Your task to perform on an android device: Open privacy settings Image 0: 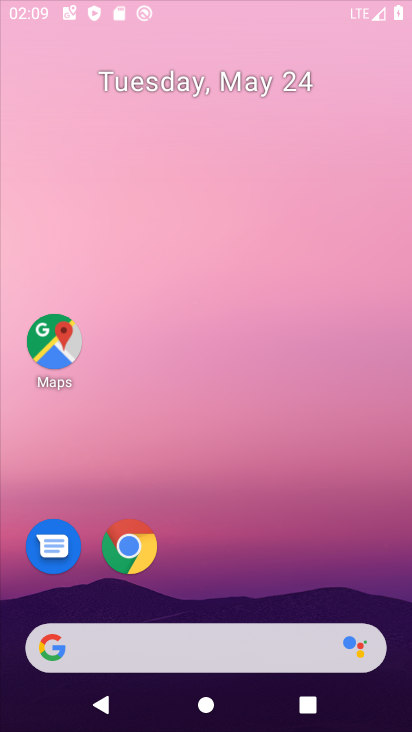
Step 0: click (341, 105)
Your task to perform on an android device: Open privacy settings Image 1: 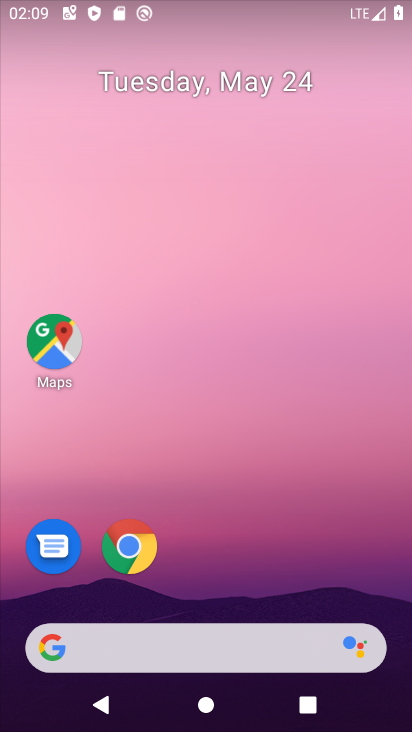
Step 1: click (288, 144)
Your task to perform on an android device: Open privacy settings Image 2: 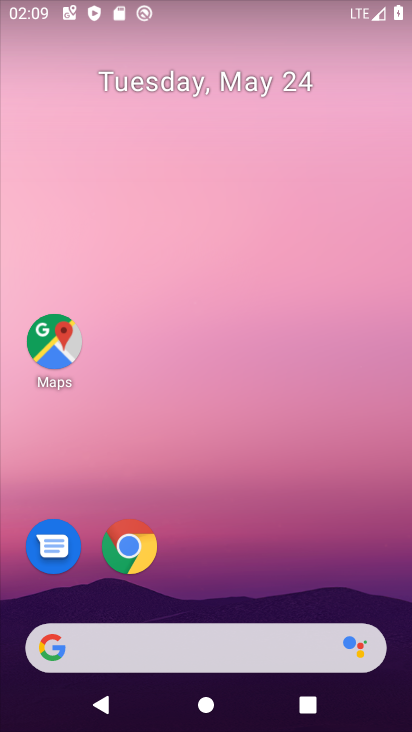
Step 2: drag from (207, 564) to (276, 116)
Your task to perform on an android device: Open privacy settings Image 3: 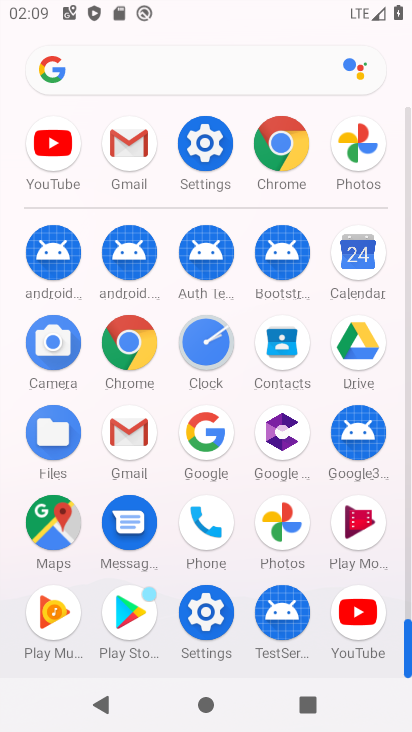
Step 3: click (206, 133)
Your task to perform on an android device: Open privacy settings Image 4: 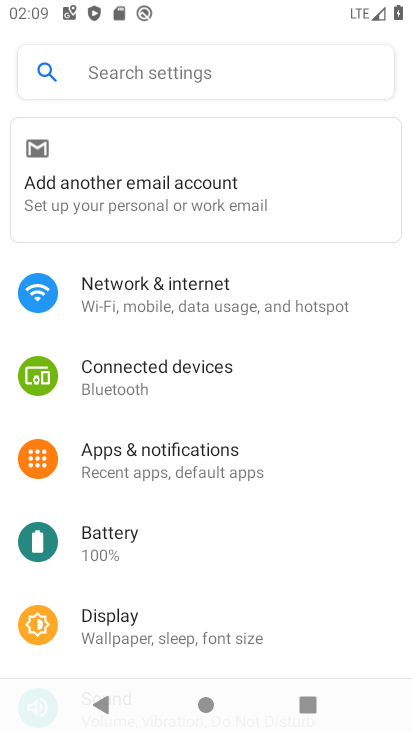
Step 4: drag from (219, 551) to (293, 167)
Your task to perform on an android device: Open privacy settings Image 5: 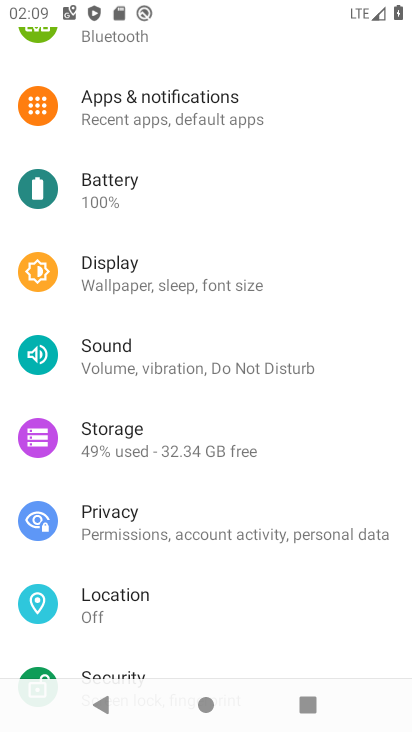
Step 5: click (160, 524)
Your task to perform on an android device: Open privacy settings Image 6: 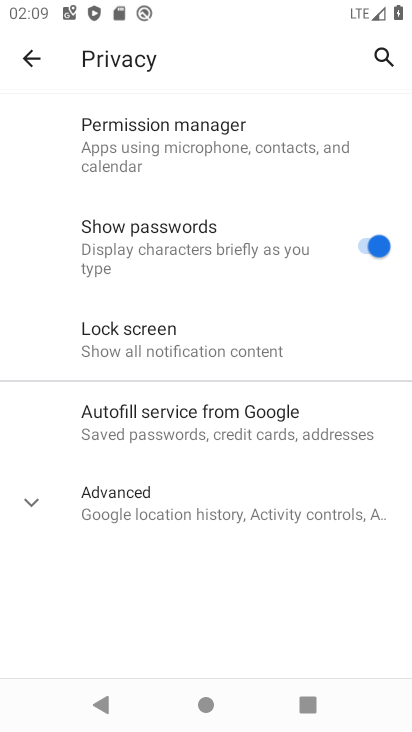
Step 6: click (221, 272)
Your task to perform on an android device: Open privacy settings Image 7: 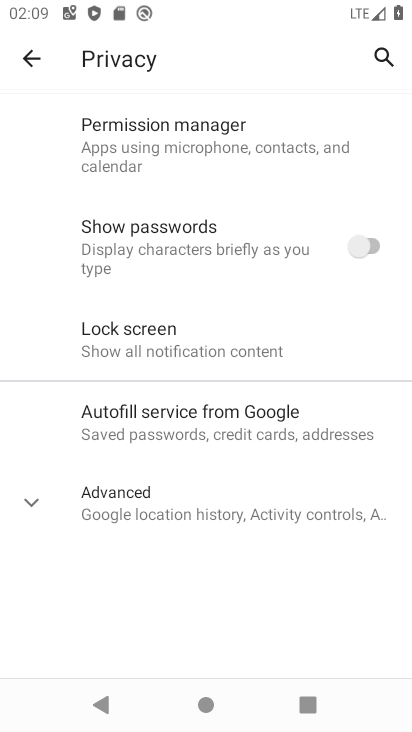
Step 7: task complete